Your task to perform on an android device: Open wifi settings Image 0: 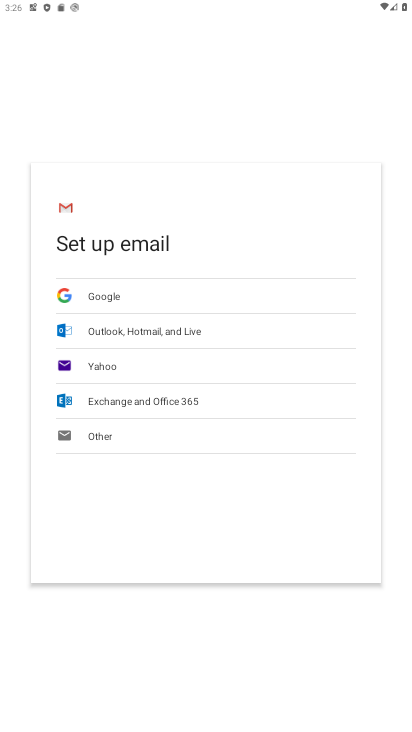
Step 0: press home button
Your task to perform on an android device: Open wifi settings Image 1: 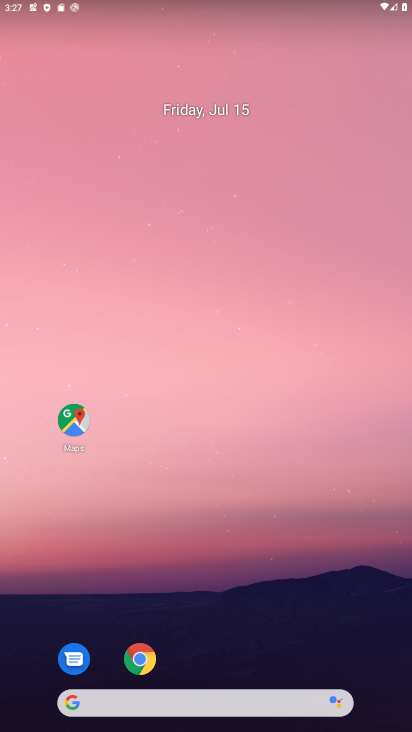
Step 1: drag from (166, 674) to (205, 270)
Your task to perform on an android device: Open wifi settings Image 2: 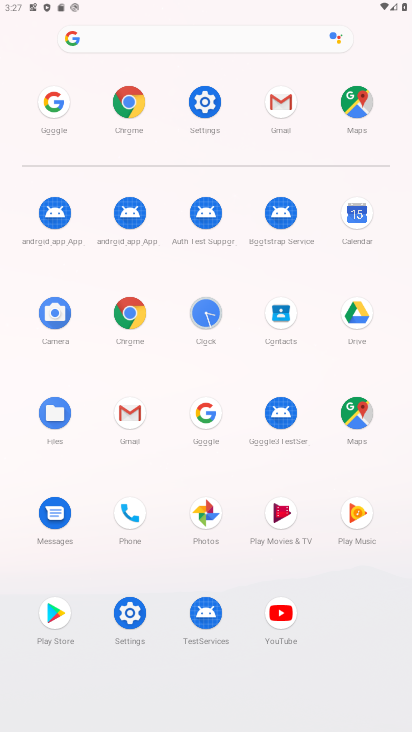
Step 2: click (201, 102)
Your task to perform on an android device: Open wifi settings Image 3: 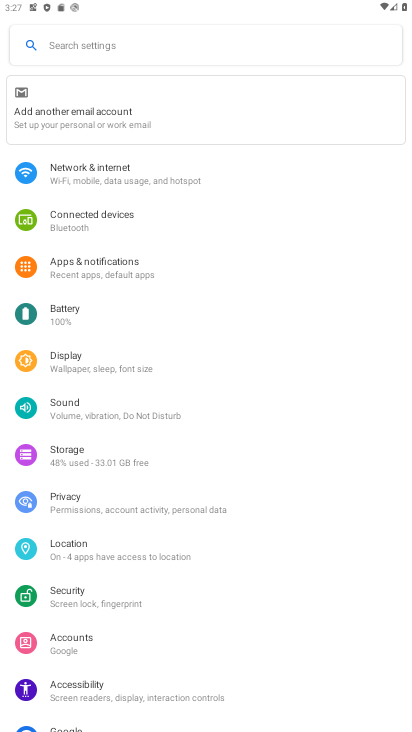
Step 3: click (102, 183)
Your task to perform on an android device: Open wifi settings Image 4: 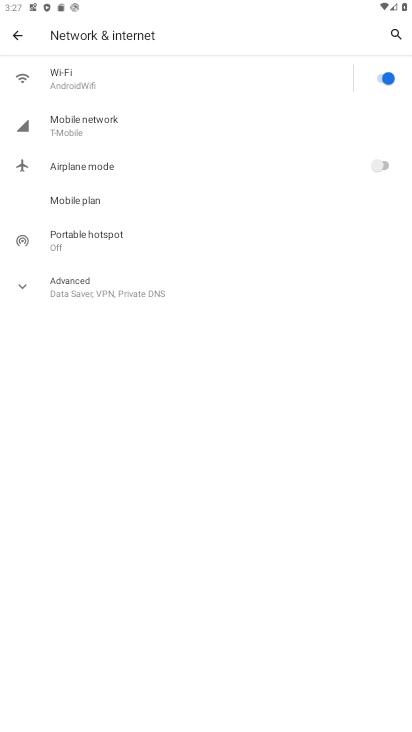
Step 4: click (69, 72)
Your task to perform on an android device: Open wifi settings Image 5: 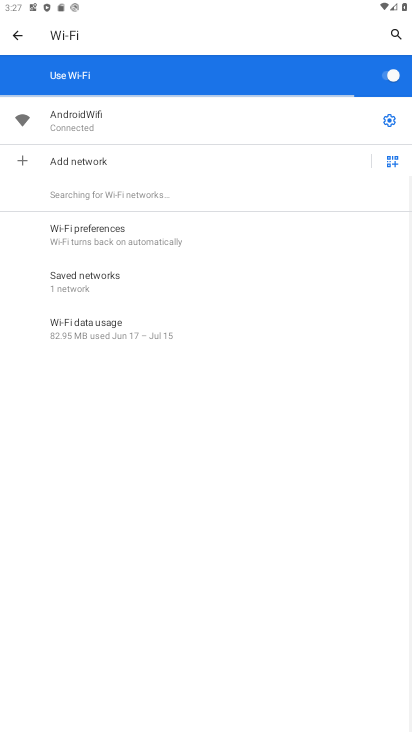
Step 5: click (390, 117)
Your task to perform on an android device: Open wifi settings Image 6: 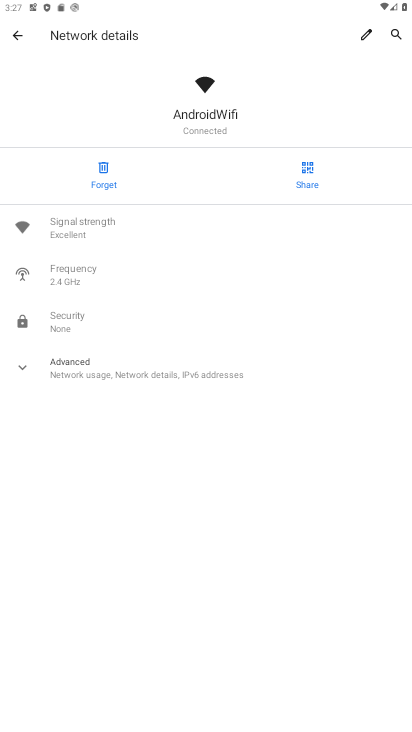
Step 6: click (19, 368)
Your task to perform on an android device: Open wifi settings Image 7: 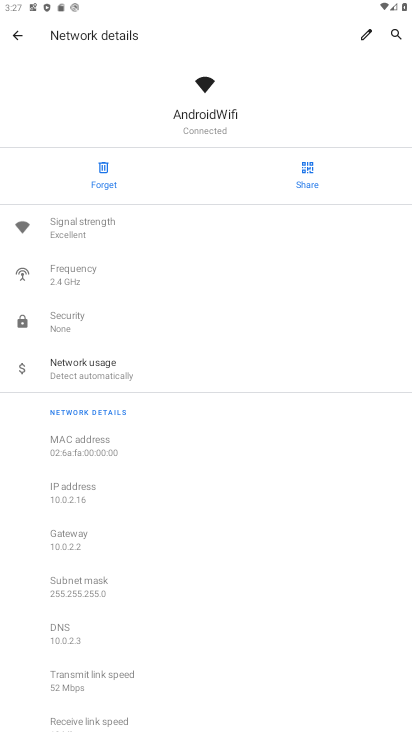
Step 7: task complete